Your task to perform on an android device: check the backup settings in the google photos Image 0: 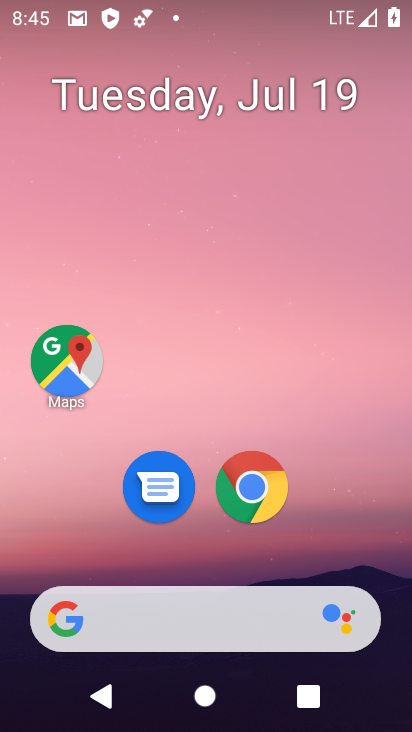
Step 0: drag from (227, 515) to (176, 176)
Your task to perform on an android device: check the backup settings in the google photos Image 1: 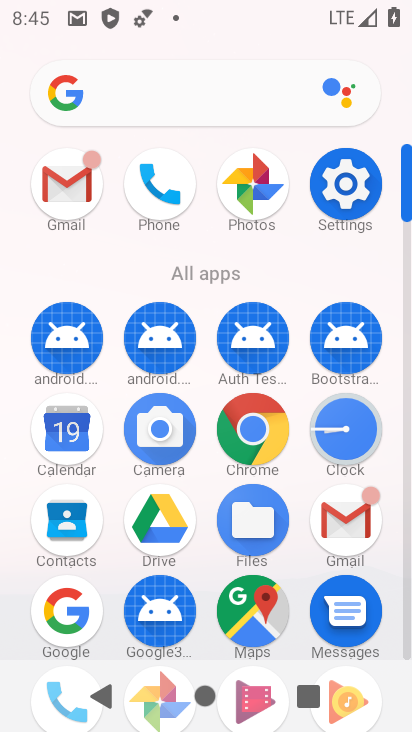
Step 1: click (261, 181)
Your task to perform on an android device: check the backup settings in the google photos Image 2: 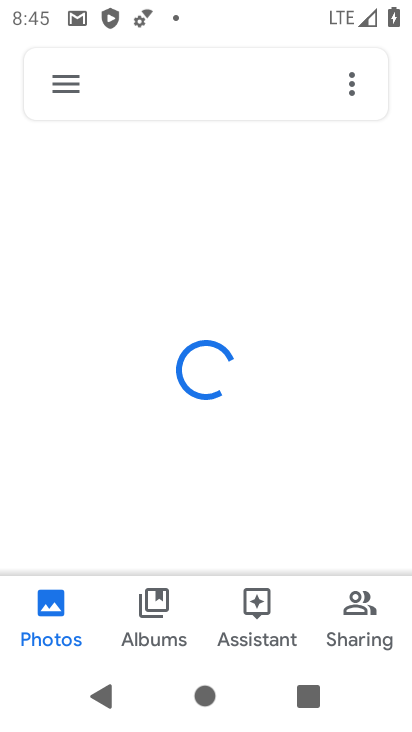
Step 2: click (69, 90)
Your task to perform on an android device: check the backup settings in the google photos Image 3: 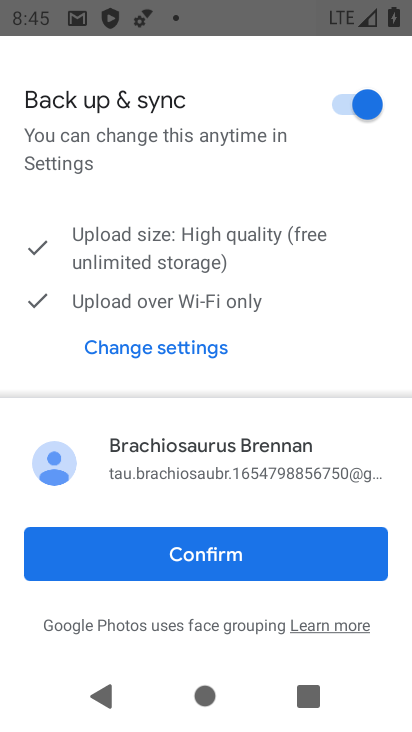
Step 3: click (178, 559)
Your task to perform on an android device: check the backup settings in the google photos Image 4: 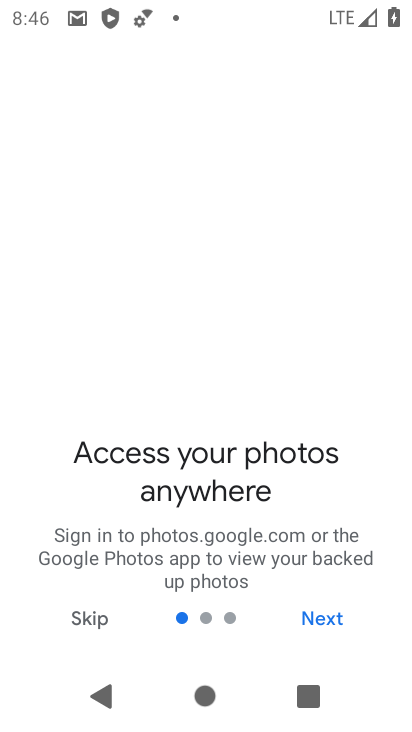
Step 4: click (71, 624)
Your task to perform on an android device: check the backup settings in the google photos Image 5: 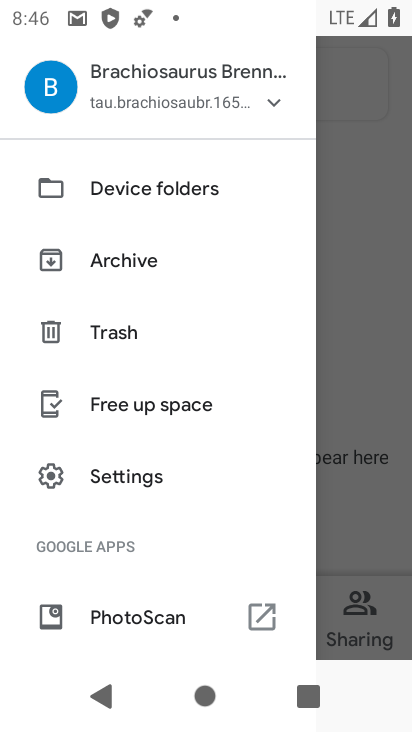
Step 5: click (133, 472)
Your task to perform on an android device: check the backup settings in the google photos Image 6: 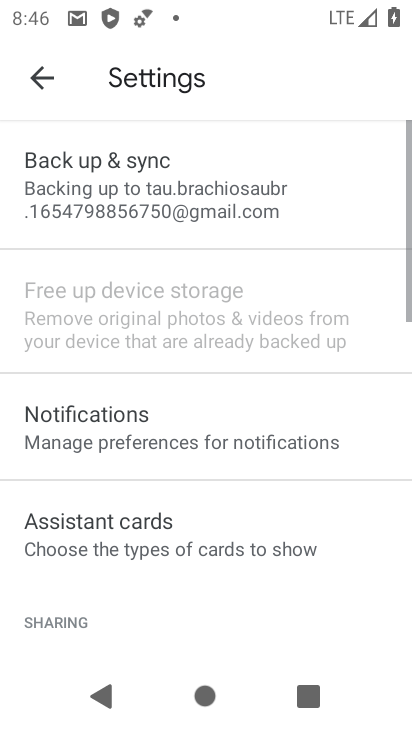
Step 6: click (170, 178)
Your task to perform on an android device: check the backup settings in the google photos Image 7: 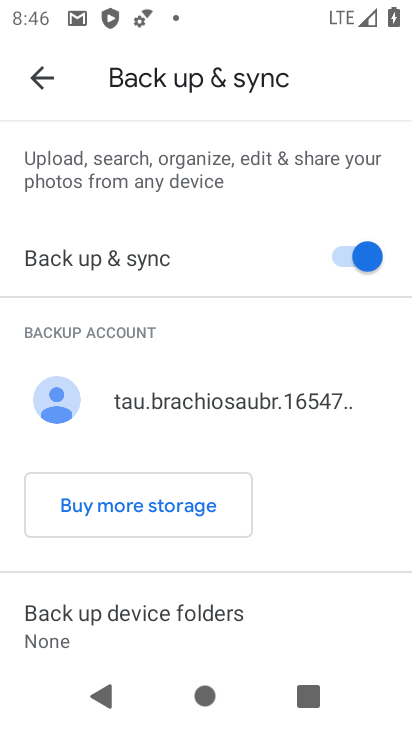
Step 7: task complete